Your task to perform on an android device: Go to Wikipedia Image 0: 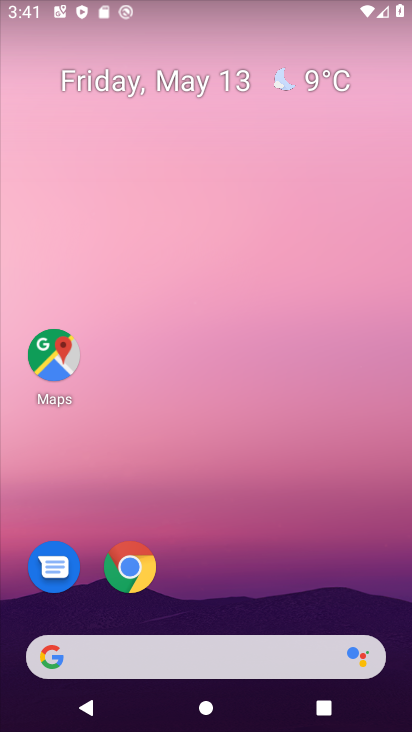
Step 0: click (133, 569)
Your task to perform on an android device: Go to Wikipedia Image 1: 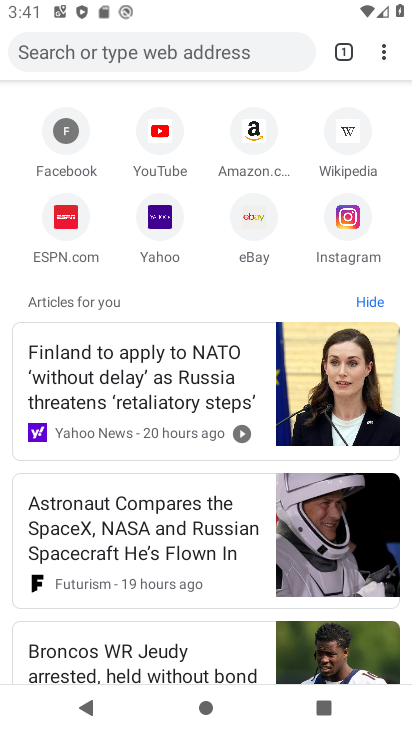
Step 1: click (351, 134)
Your task to perform on an android device: Go to Wikipedia Image 2: 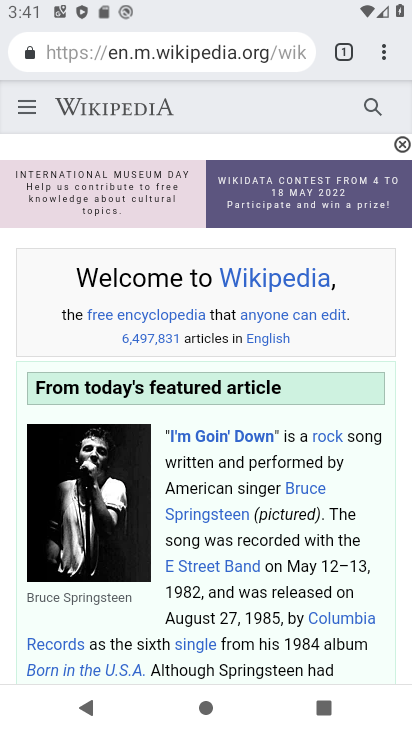
Step 2: task complete